Your task to perform on an android device: Open sound settings Image 0: 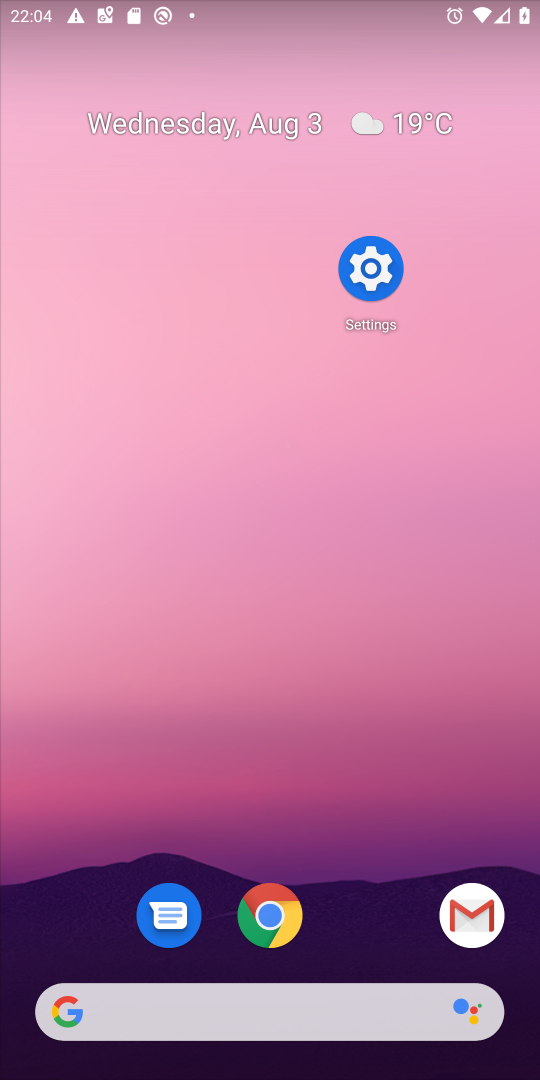
Step 0: drag from (382, 905) to (215, 202)
Your task to perform on an android device: Open sound settings Image 1: 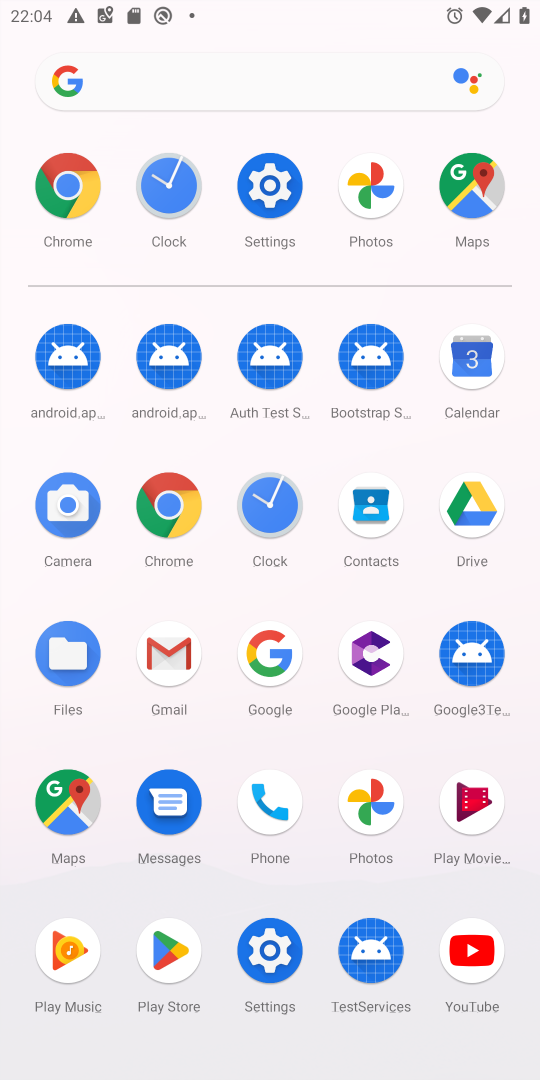
Step 1: click (268, 195)
Your task to perform on an android device: Open sound settings Image 2: 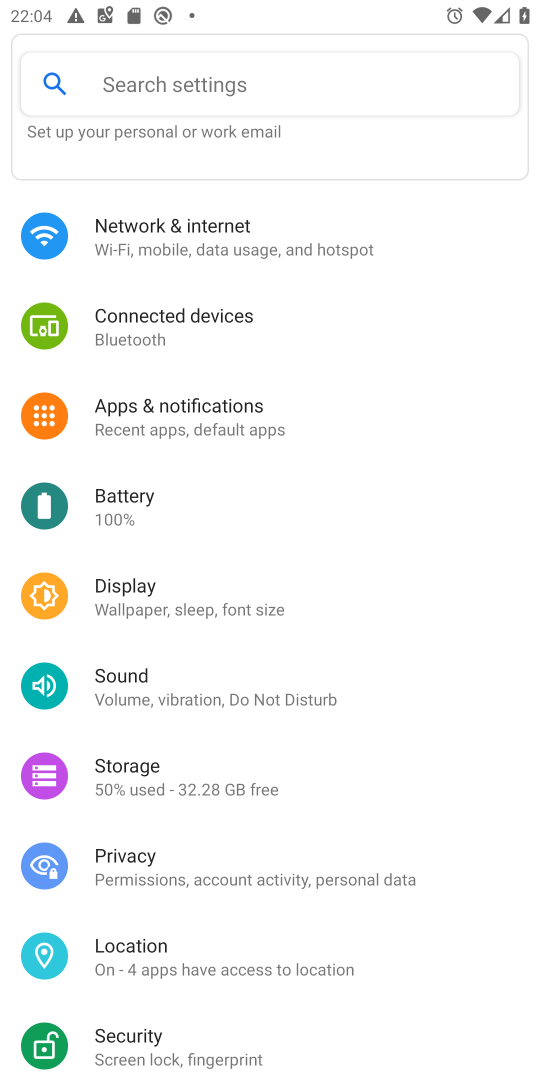
Step 2: click (154, 679)
Your task to perform on an android device: Open sound settings Image 3: 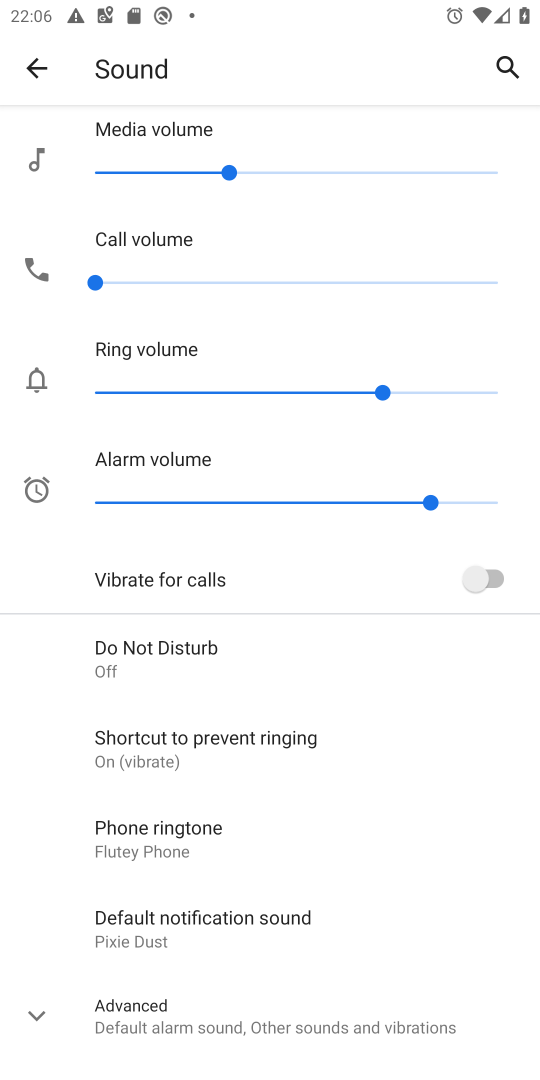
Step 3: task complete